Your task to perform on an android device: open app "Truecaller" (install if not already installed) and enter user name: "coauthor@gmail.com" and password: "quadrangle" Image 0: 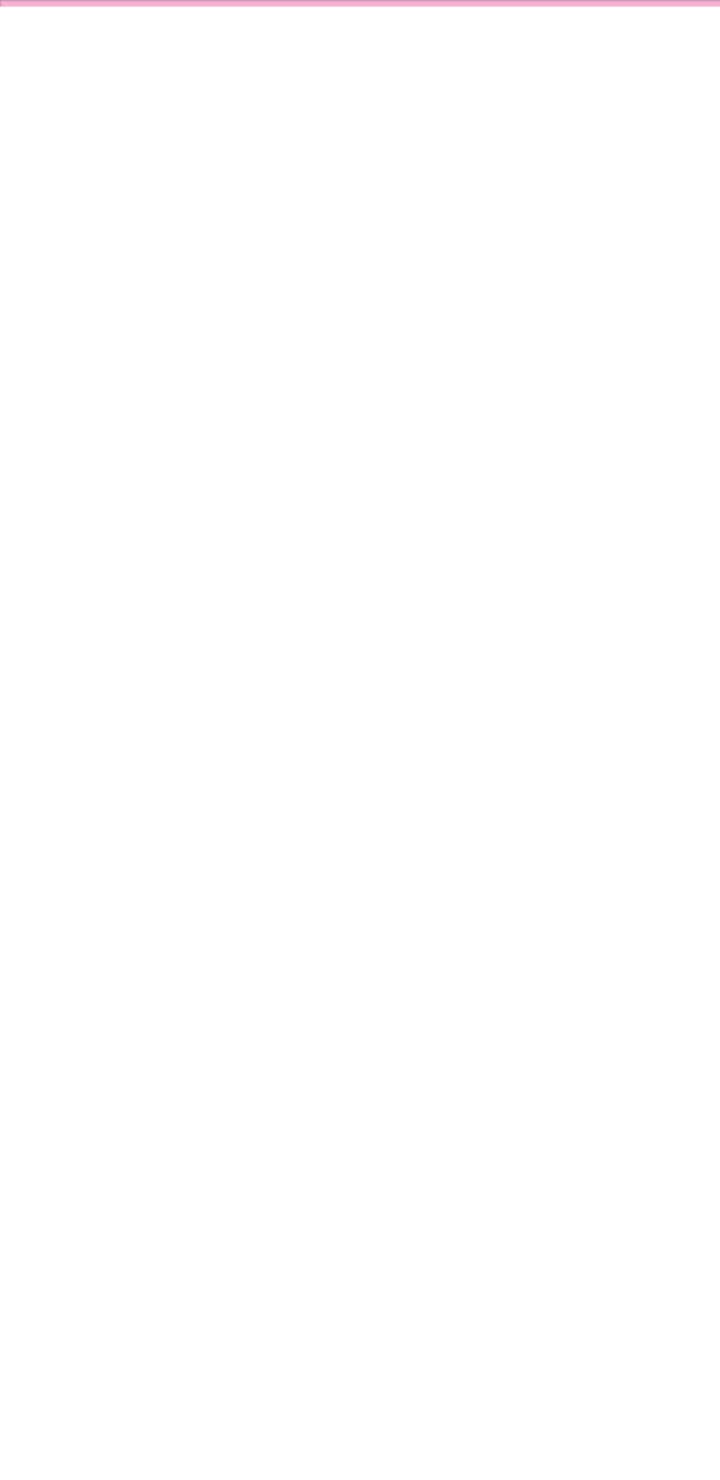
Step 0: click (22, 70)
Your task to perform on an android device: open app "Truecaller" (install if not already installed) and enter user name: "coauthor@gmail.com" and password: "quadrangle" Image 1: 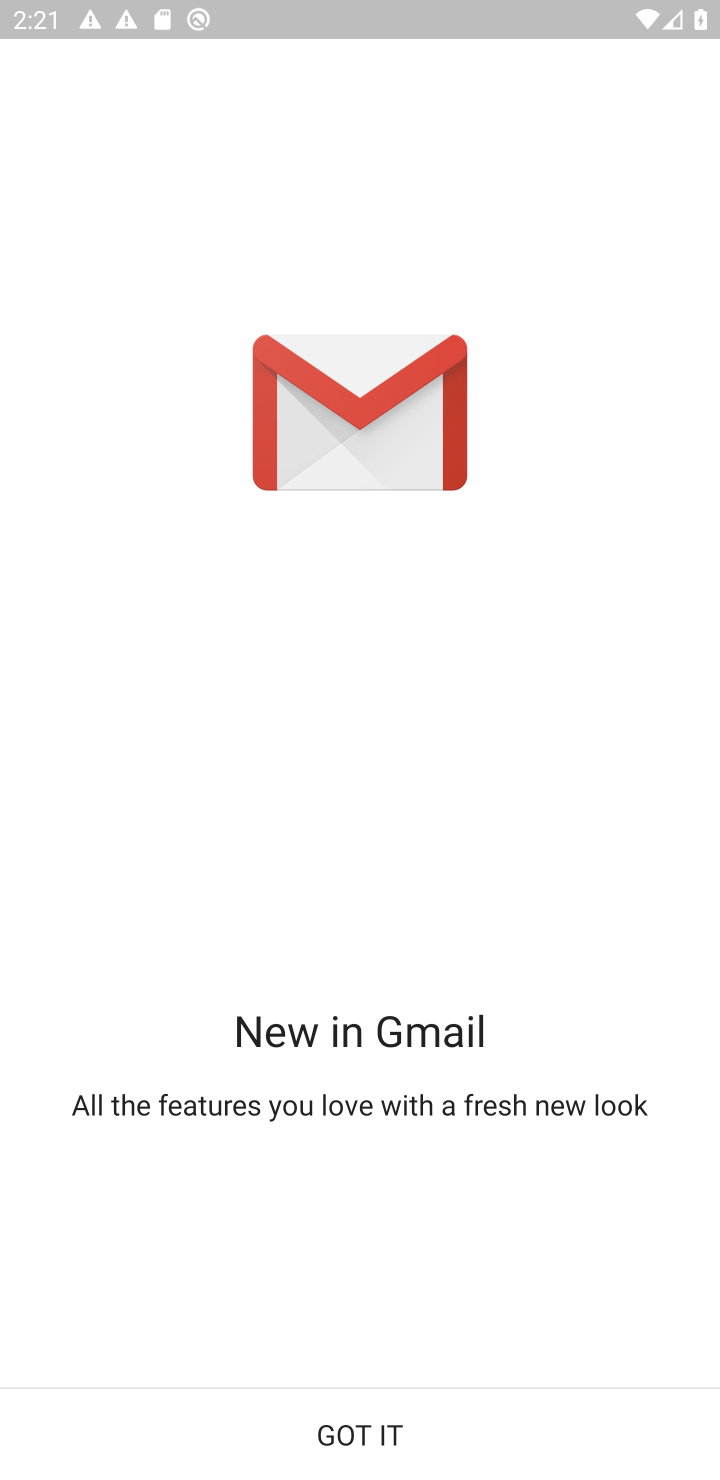
Step 1: press home button
Your task to perform on an android device: open app "Truecaller" (install if not already installed) and enter user name: "coauthor@gmail.com" and password: "quadrangle" Image 2: 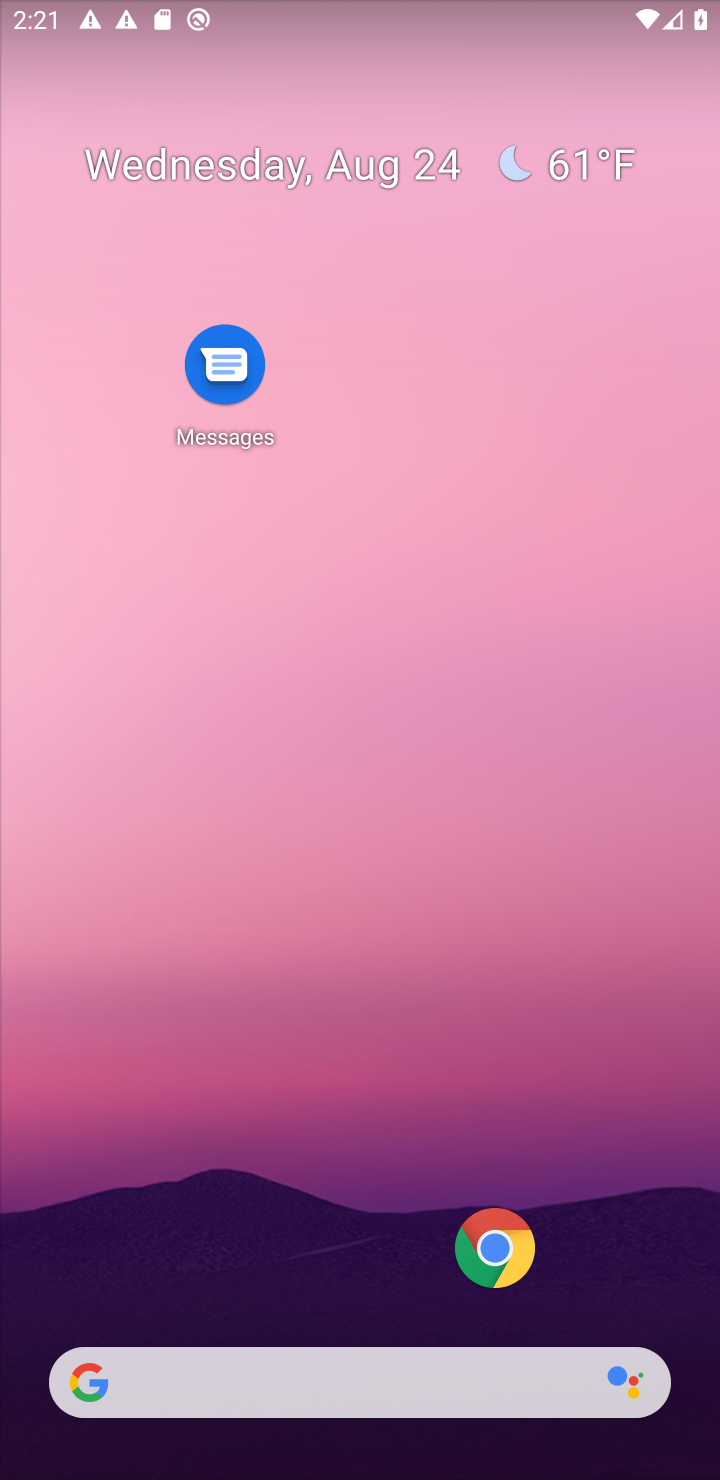
Step 2: drag from (346, 848) to (343, 225)
Your task to perform on an android device: open app "Truecaller" (install if not already installed) and enter user name: "coauthor@gmail.com" and password: "quadrangle" Image 3: 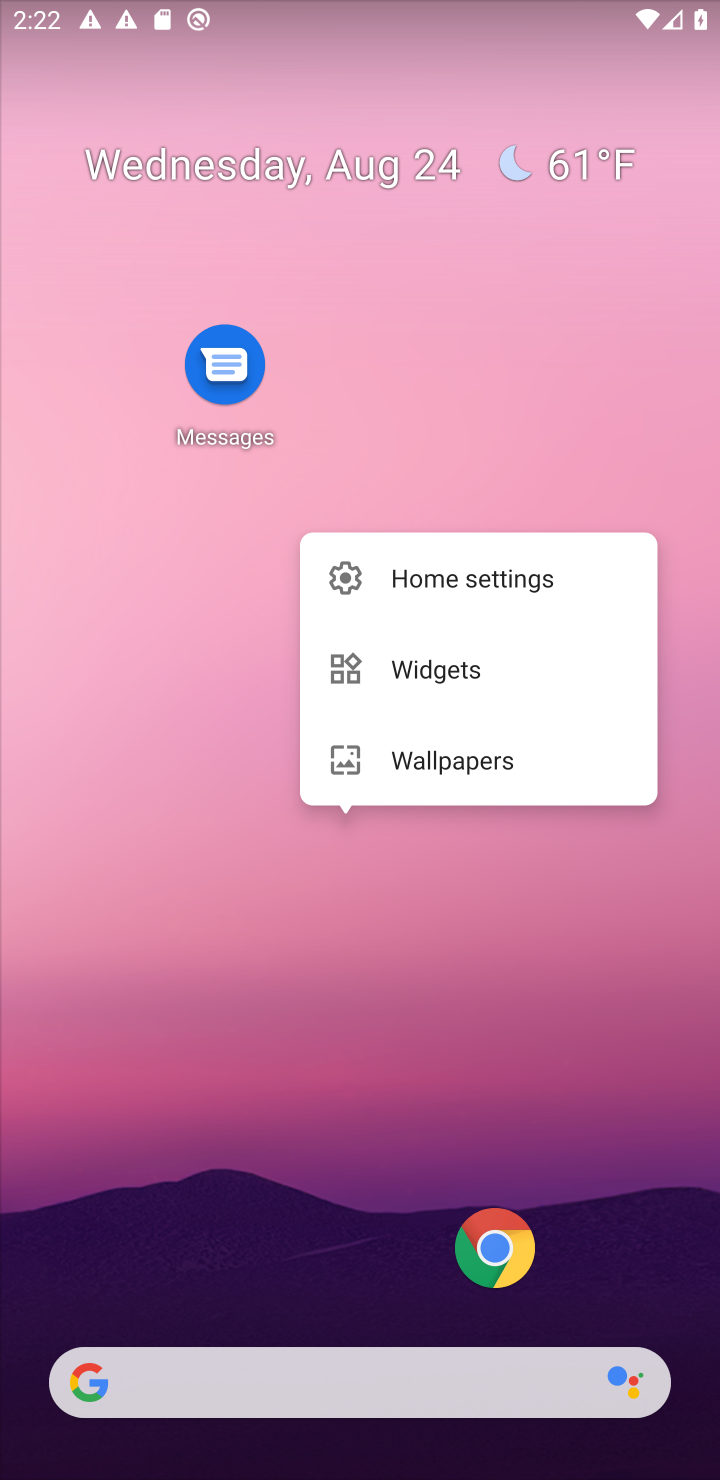
Step 3: click (309, 959)
Your task to perform on an android device: open app "Truecaller" (install if not already installed) and enter user name: "coauthor@gmail.com" and password: "quadrangle" Image 4: 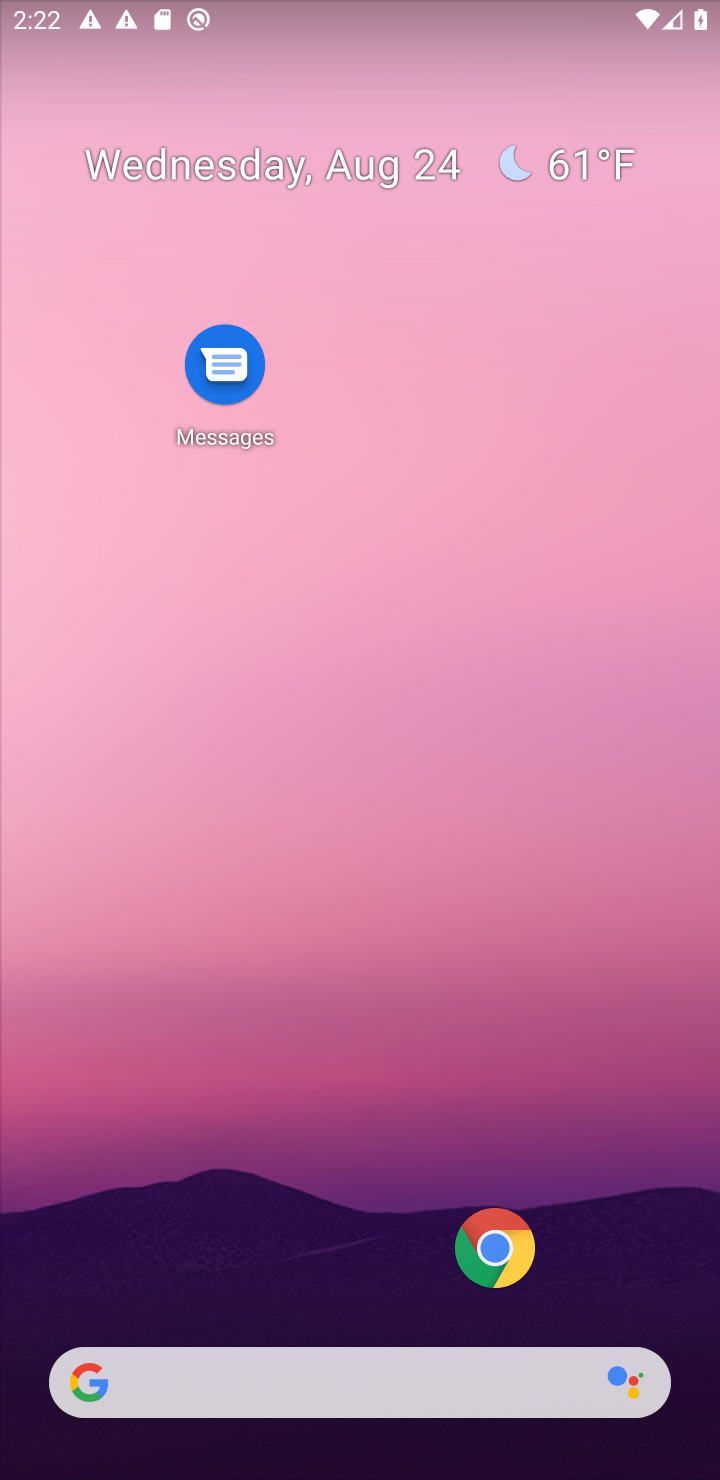
Step 4: drag from (301, 994) to (295, 283)
Your task to perform on an android device: open app "Truecaller" (install if not already installed) and enter user name: "coauthor@gmail.com" and password: "quadrangle" Image 5: 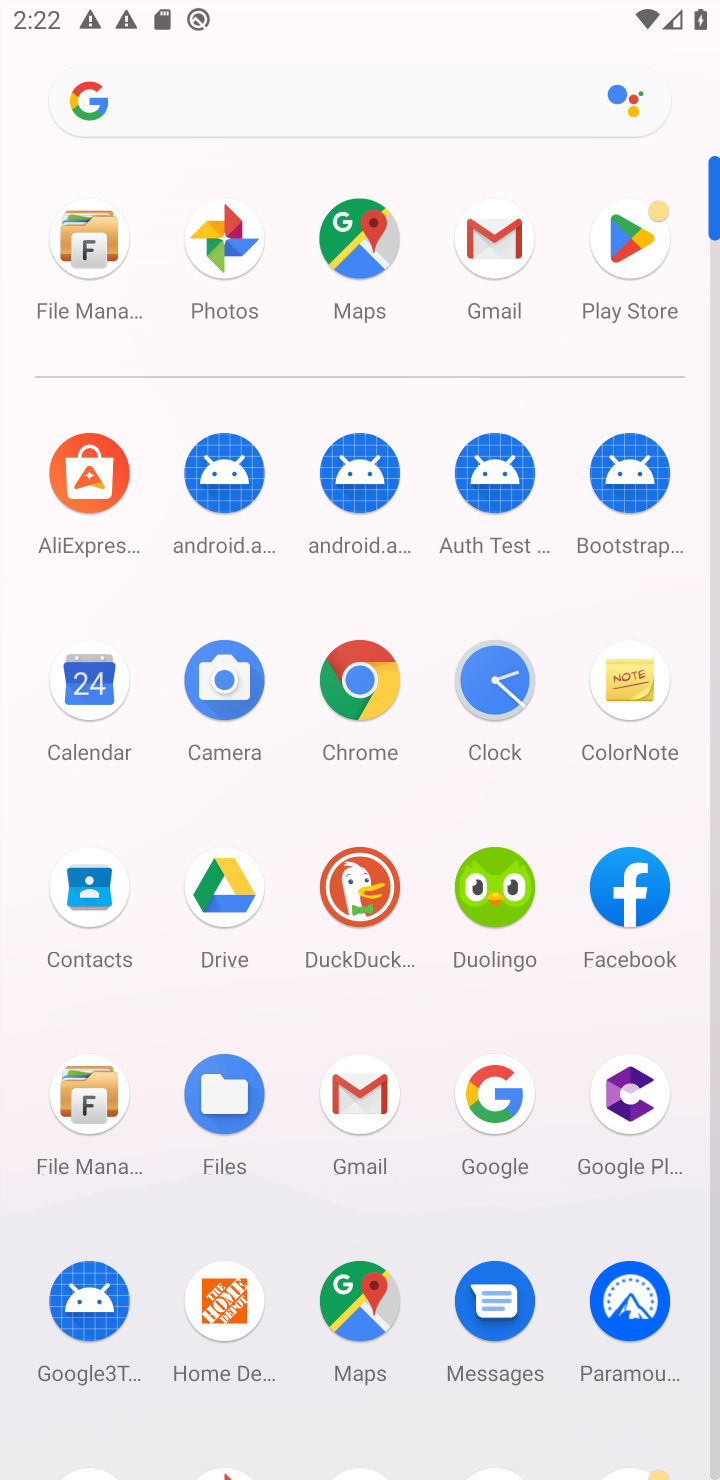
Step 5: click (644, 229)
Your task to perform on an android device: open app "Truecaller" (install if not already installed) and enter user name: "coauthor@gmail.com" and password: "quadrangle" Image 6: 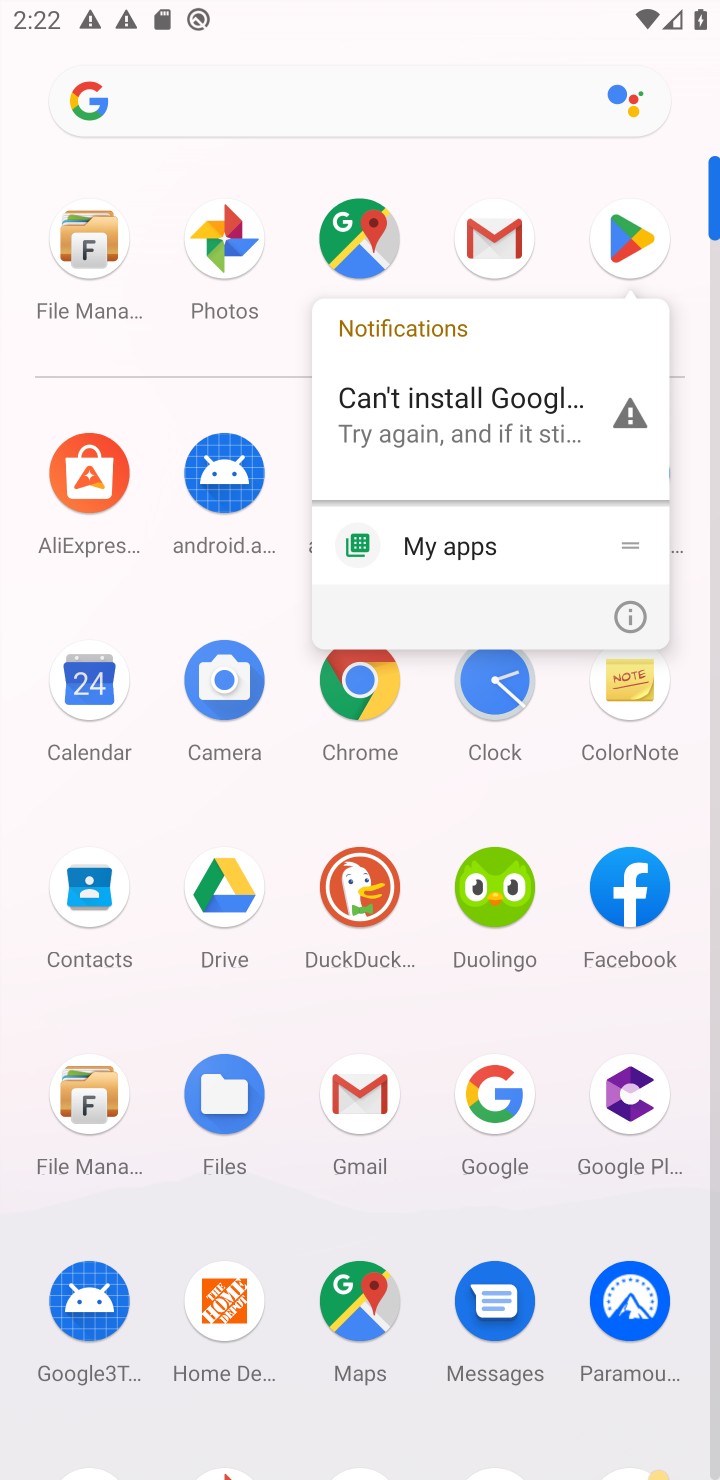
Step 6: click (614, 235)
Your task to perform on an android device: open app "Truecaller" (install if not already installed) and enter user name: "coauthor@gmail.com" and password: "quadrangle" Image 7: 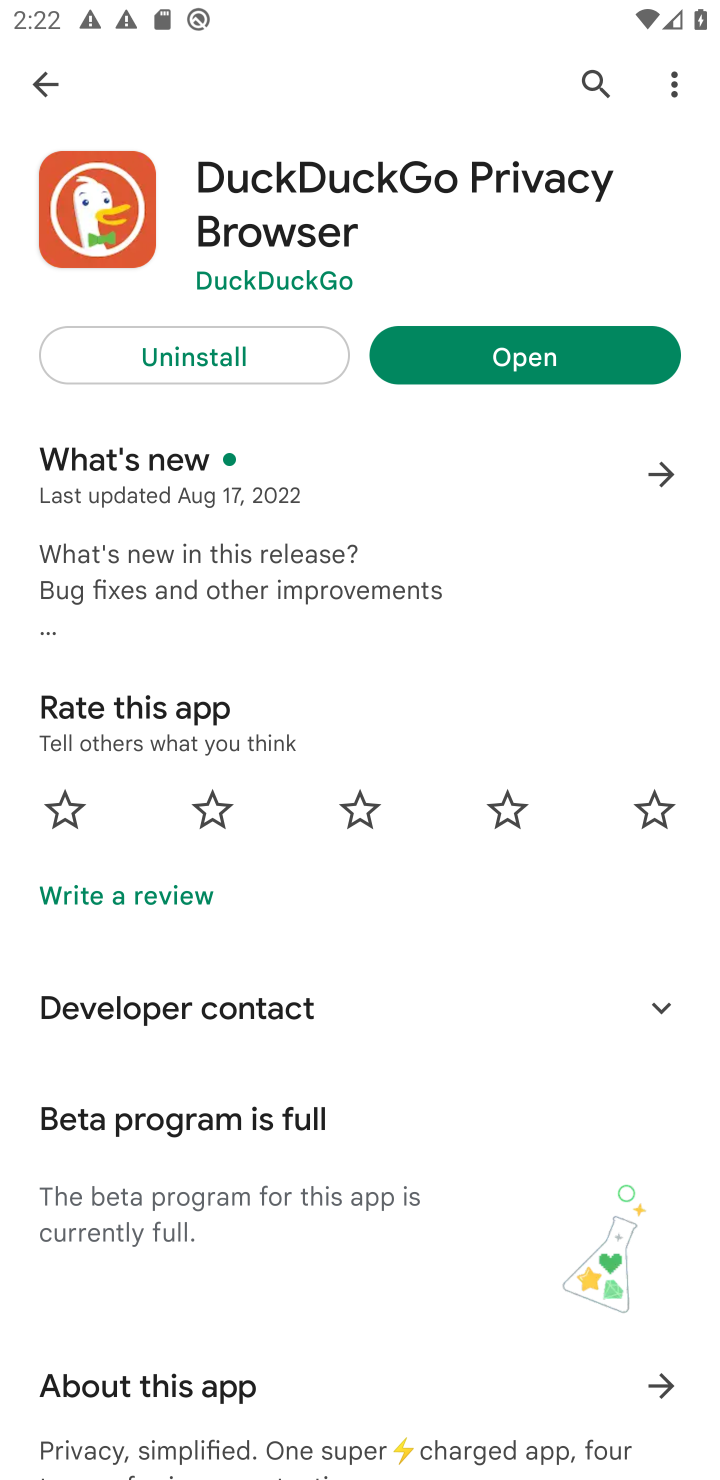
Step 7: click (41, 88)
Your task to perform on an android device: open app "Truecaller" (install if not already installed) and enter user name: "coauthor@gmail.com" and password: "quadrangle" Image 8: 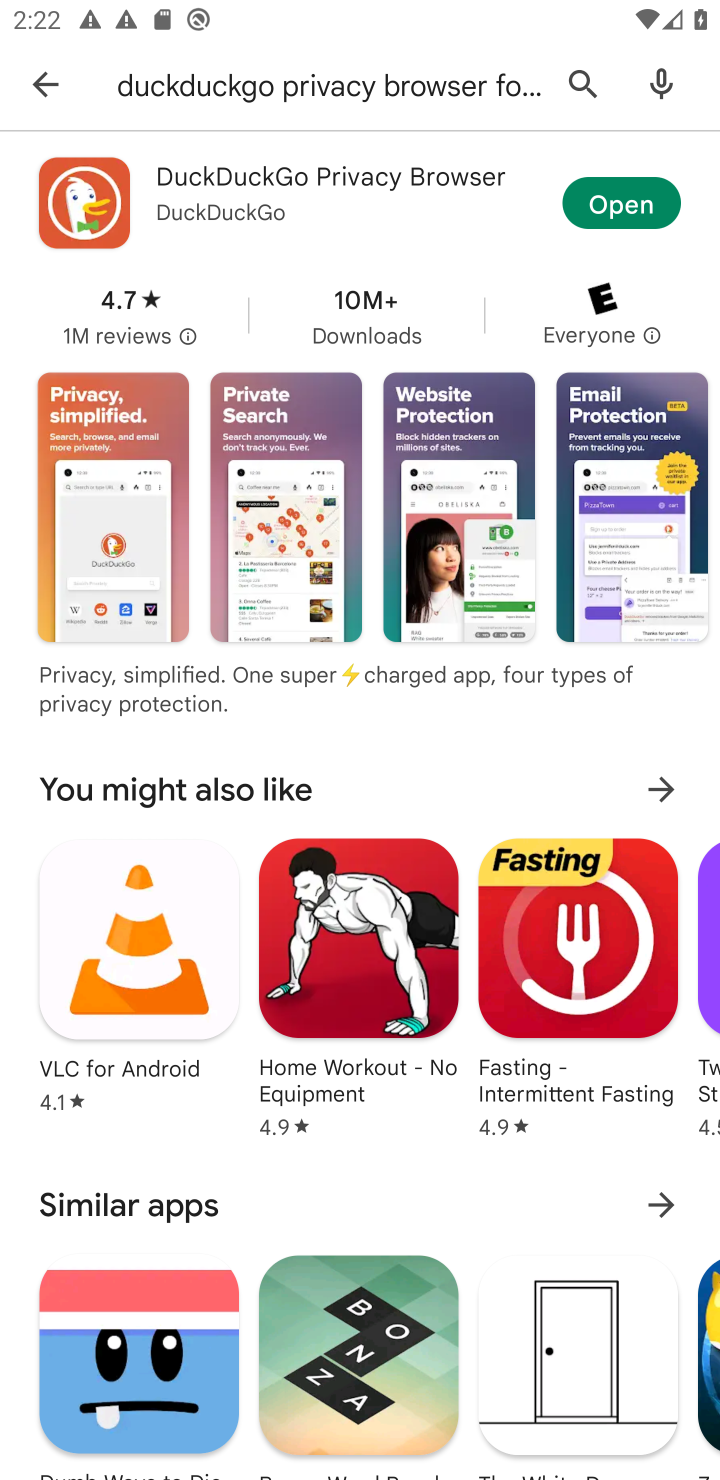
Step 8: click (557, 61)
Your task to perform on an android device: open app "Truecaller" (install if not already installed) and enter user name: "coauthor@gmail.com" and password: "quadrangle" Image 9: 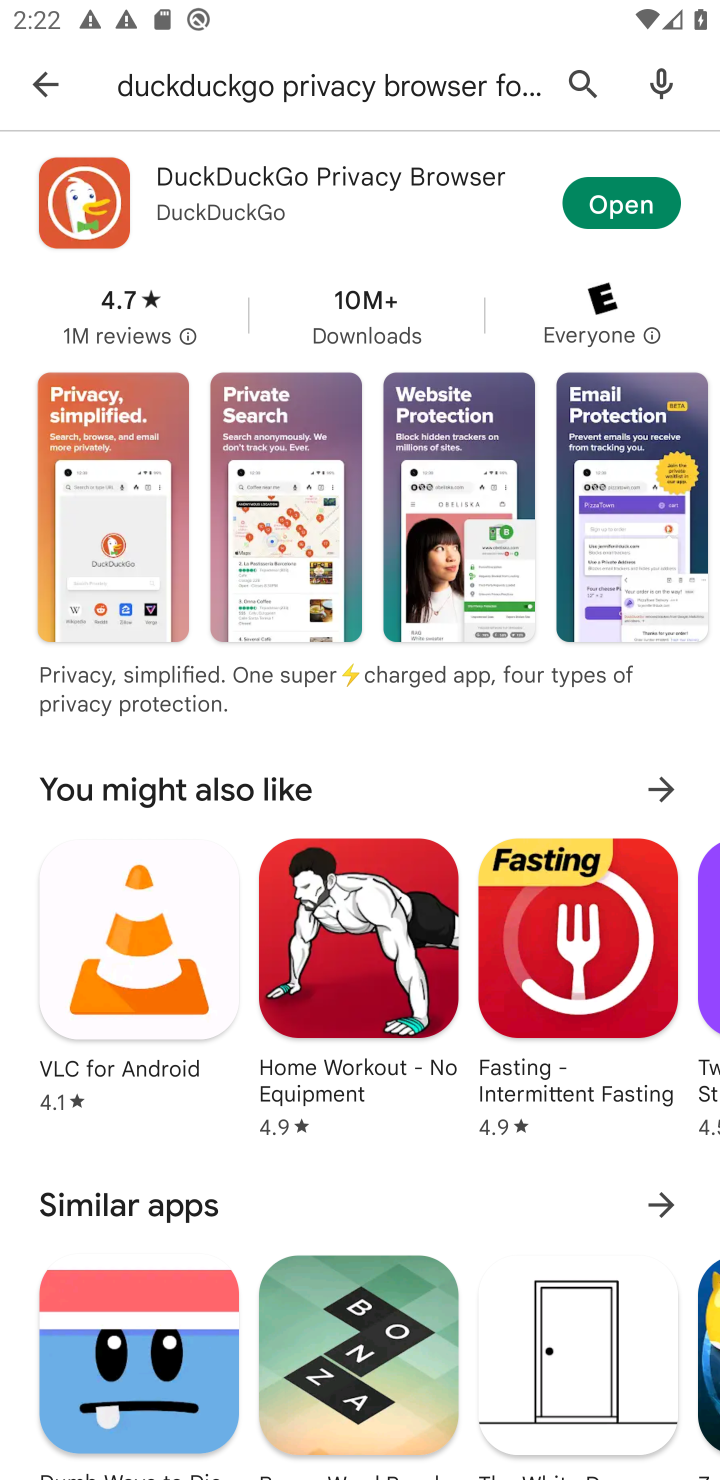
Step 9: click (564, 71)
Your task to perform on an android device: open app "Truecaller" (install if not already installed) and enter user name: "coauthor@gmail.com" and password: "quadrangle" Image 10: 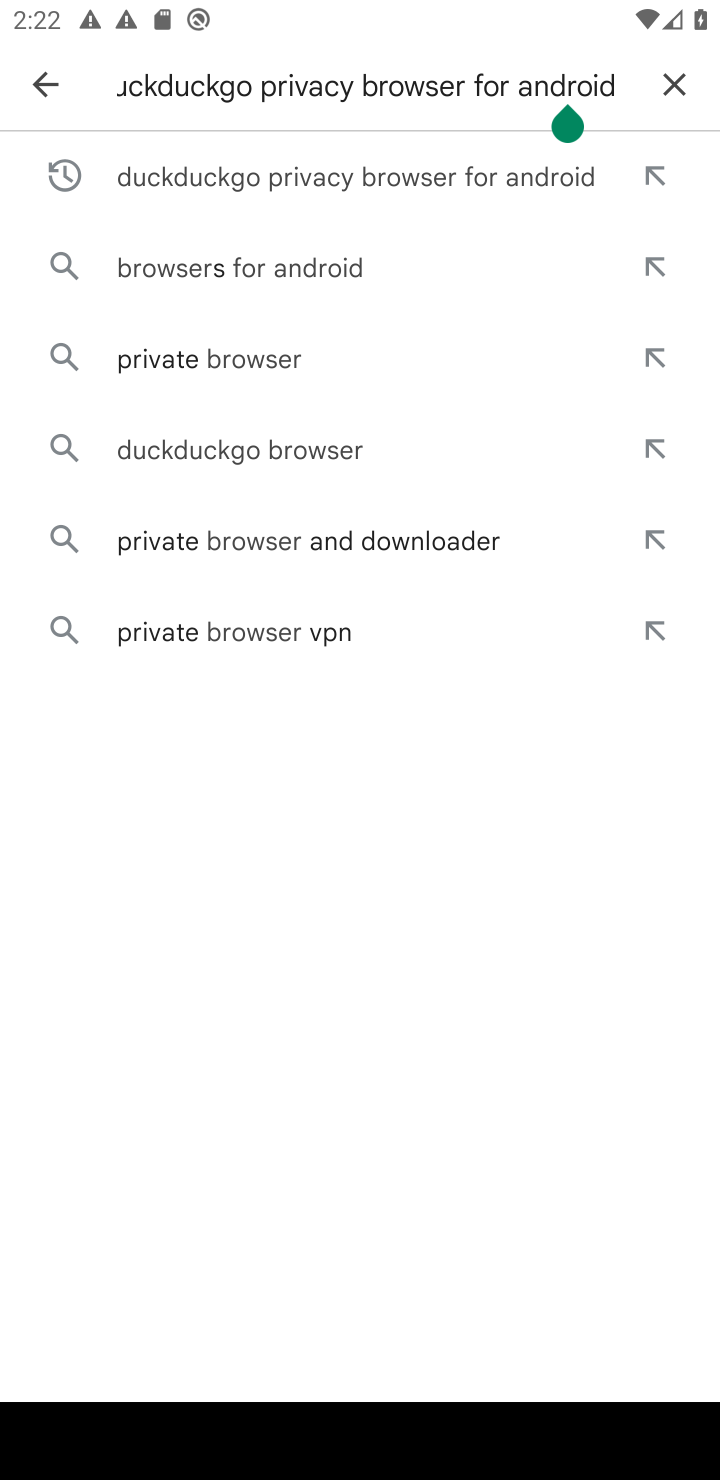
Step 10: click (676, 79)
Your task to perform on an android device: open app "Truecaller" (install if not already installed) and enter user name: "coauthor@gmail.com" and password: "quadrangle" Image 11: 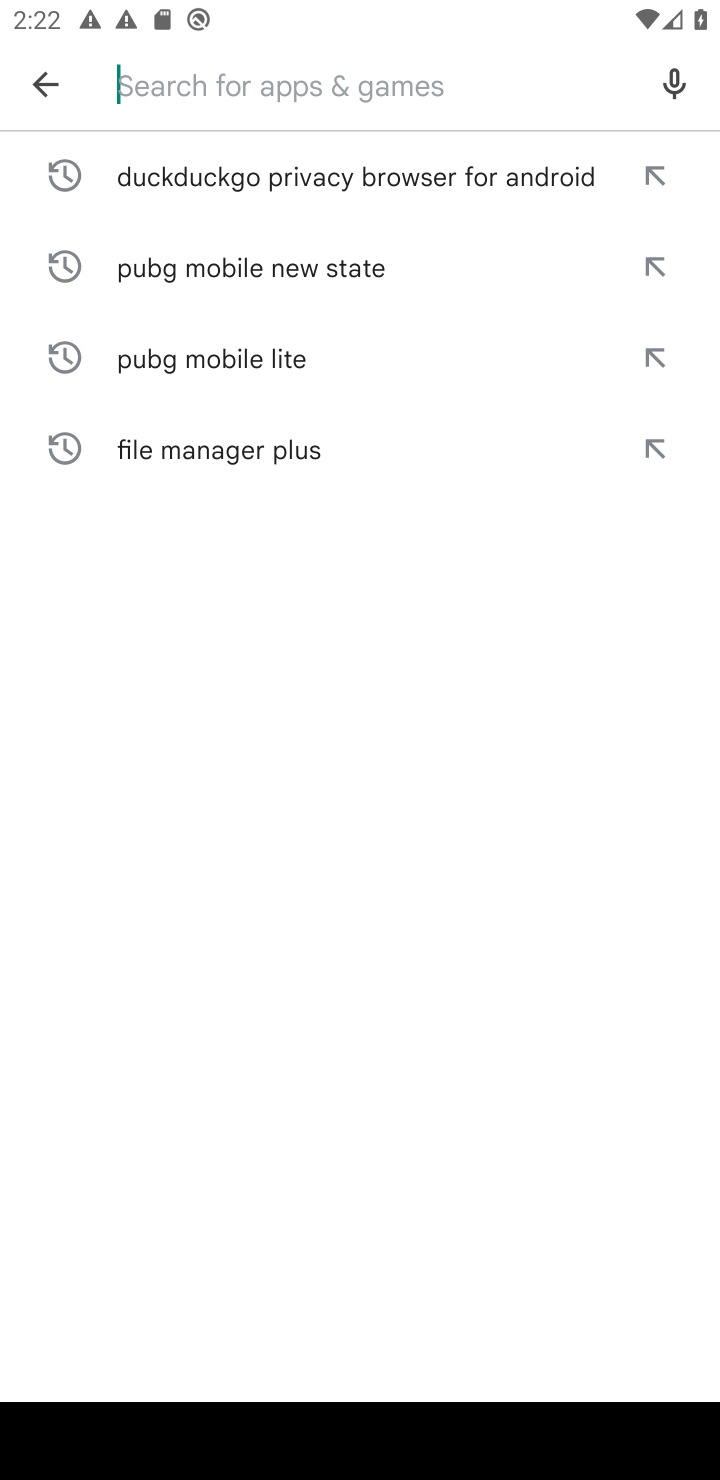
Step 11: click (204, 79)
Your task to perform on an android device: open app "Truecaller" (install if not already installed) and enter user name: "coauthor@gmail.com" and password: "quadrangle" Image 12: 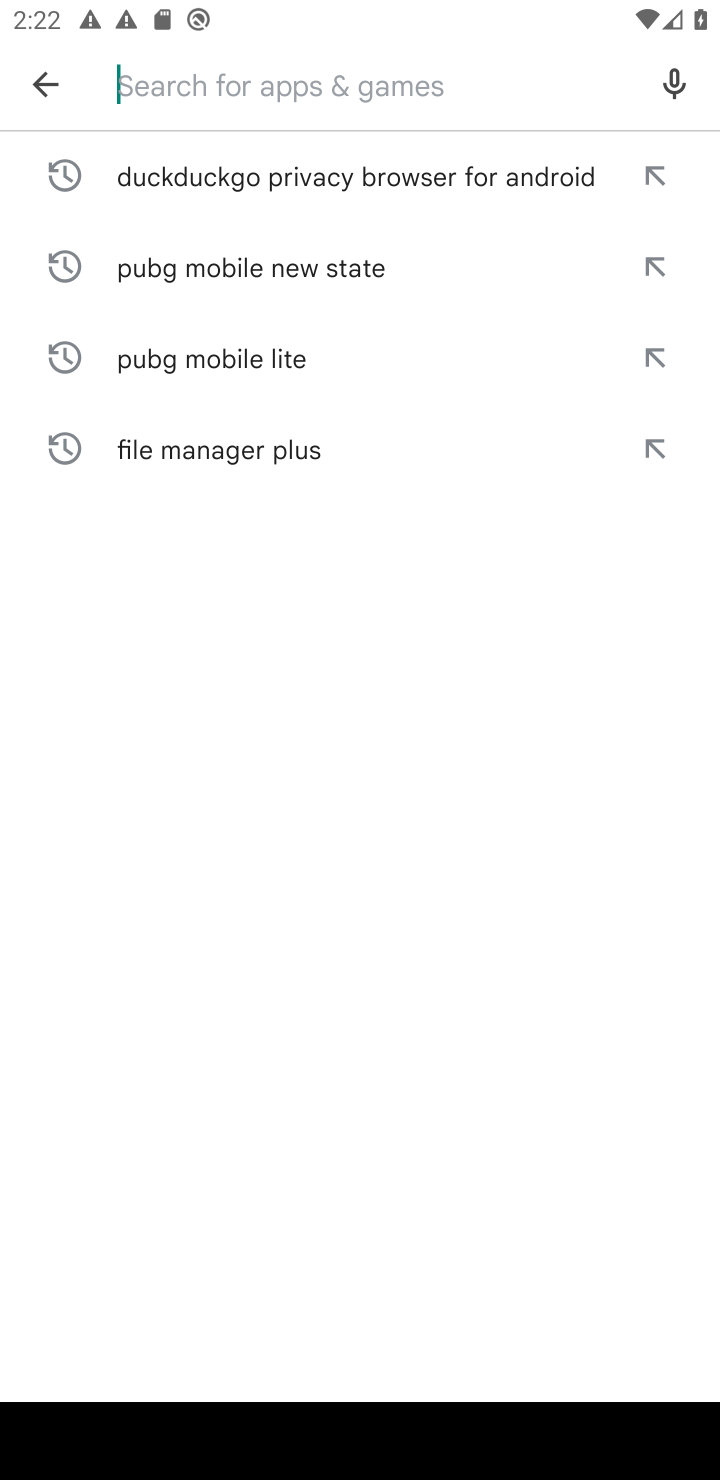
Step 12: type "truecaller "
Your task to perform on an android device: open app "Truecaller" (install if not already installed) and enter user name: "coauthor@gmail.com" and password: "quadrangle" Image 13: 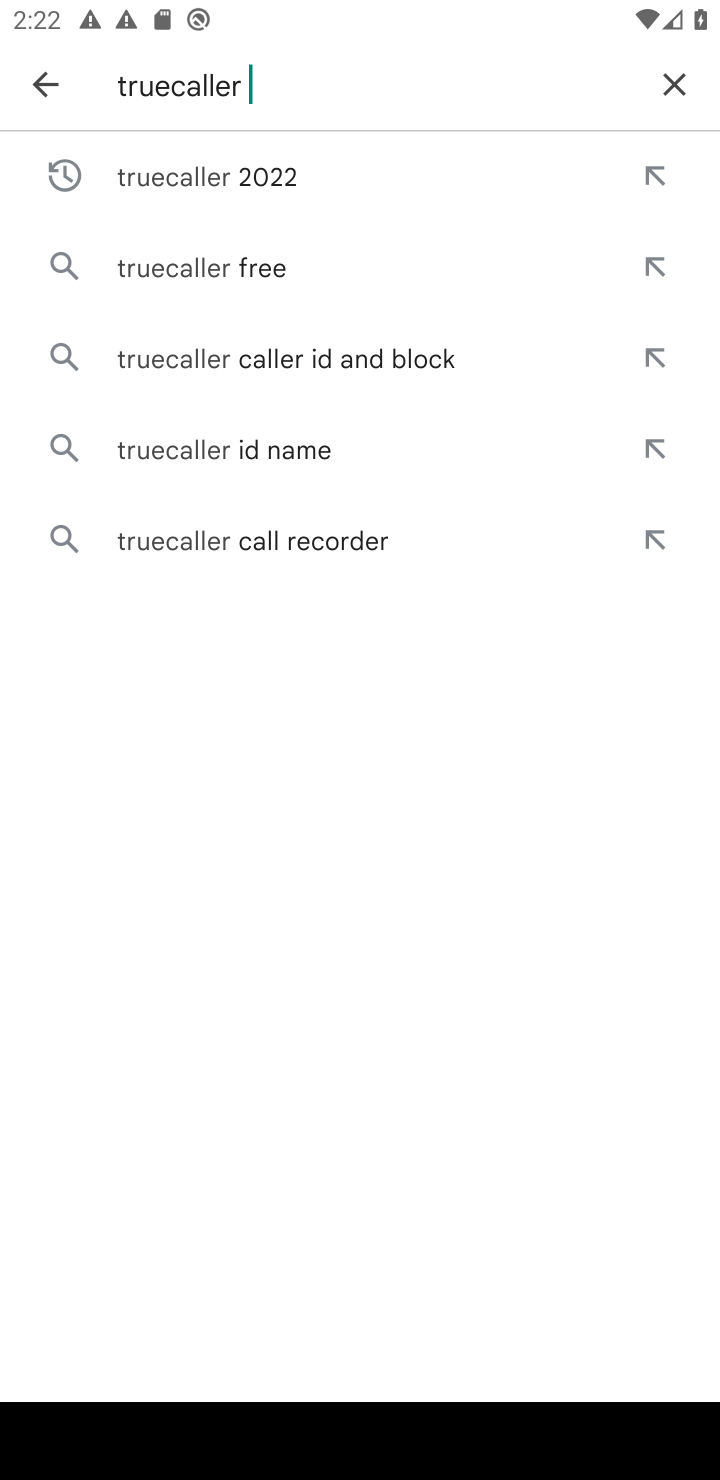
Step 13: click (241, 284)
Your task to perform on an android device: open app "Truecaller" (install if not already installed) and enter user name: "coauthor@gmail.com" and password: "quadrangle" Image 14: 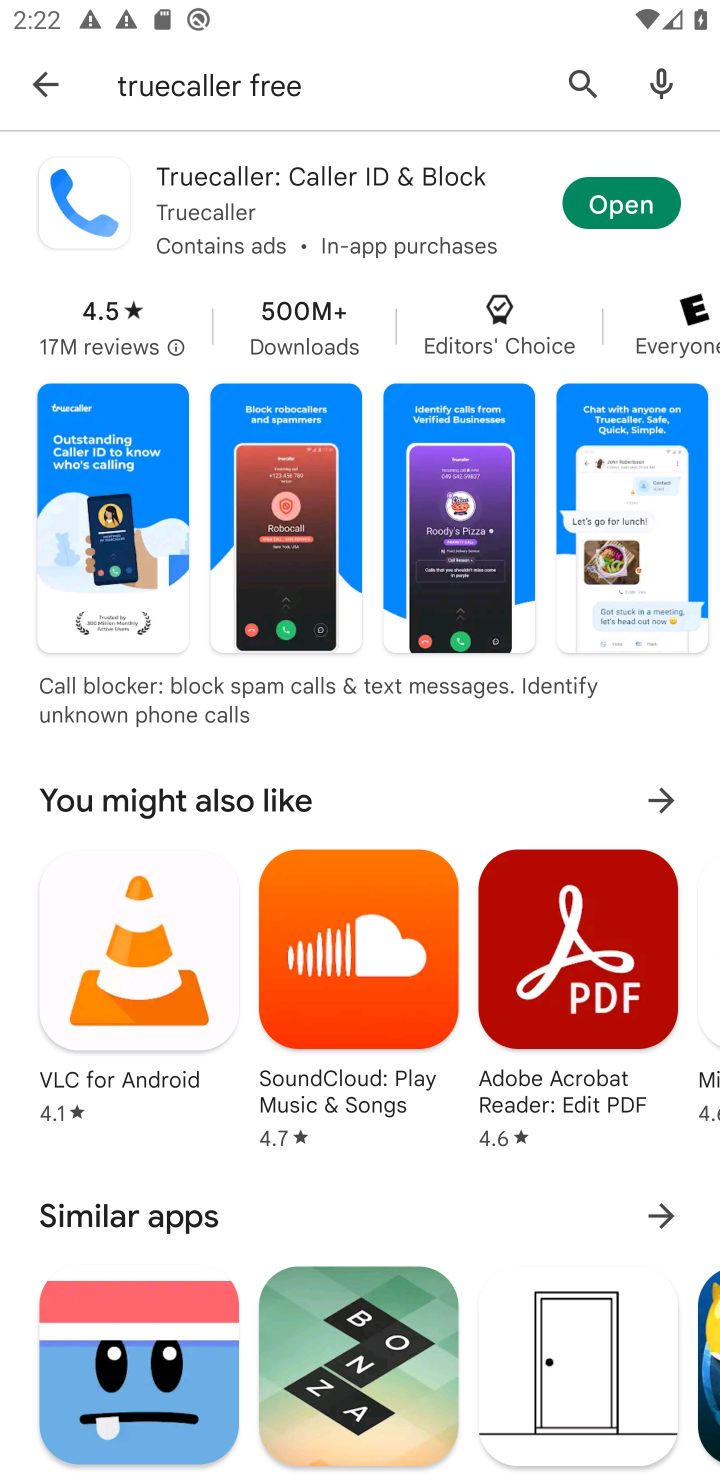
Step 14: click (588, 209)
Your task to perform on an android device: open app "Truecaller" (install if not already installed) and enter user name: "coauthor@gmail.com" and password: "quadrangle" Image 15: 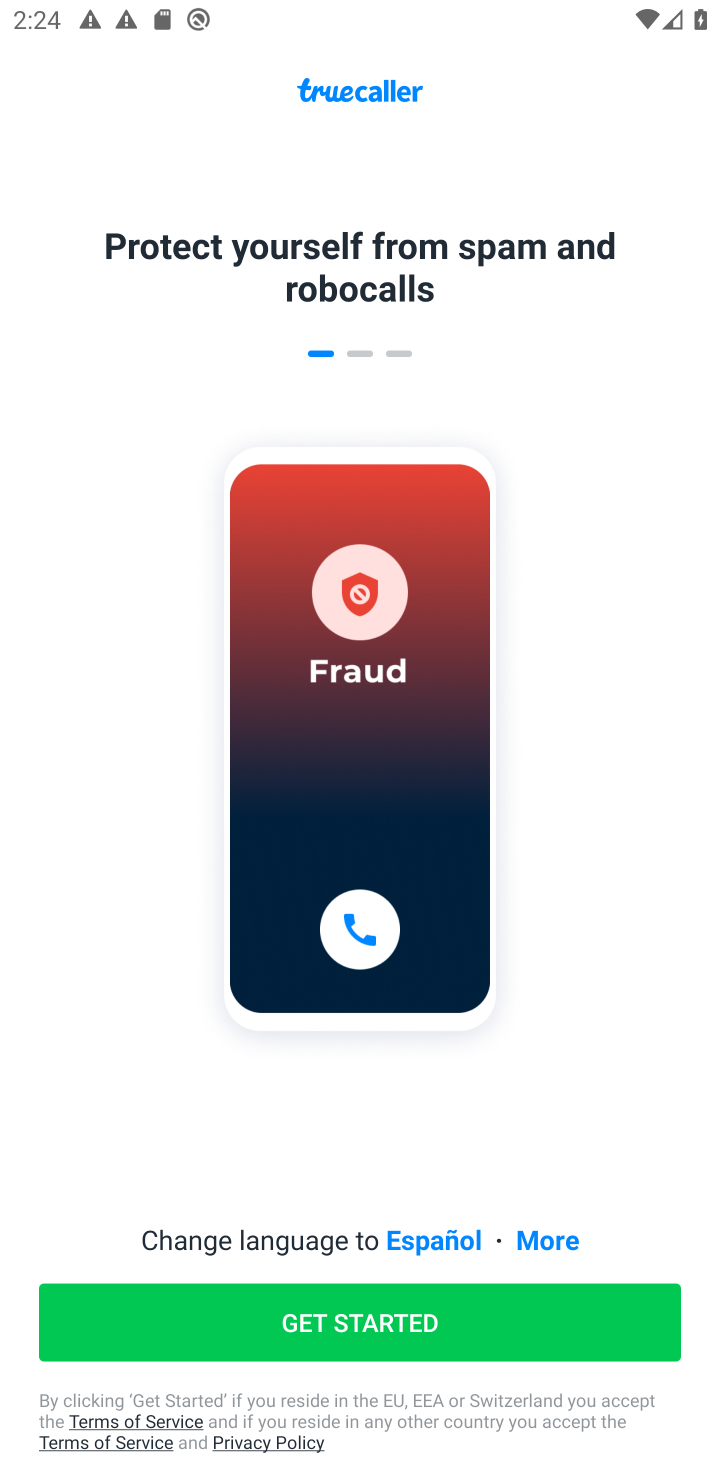
Step 15: task complete